Your task to perform on an android device: show emergency info Image 0: 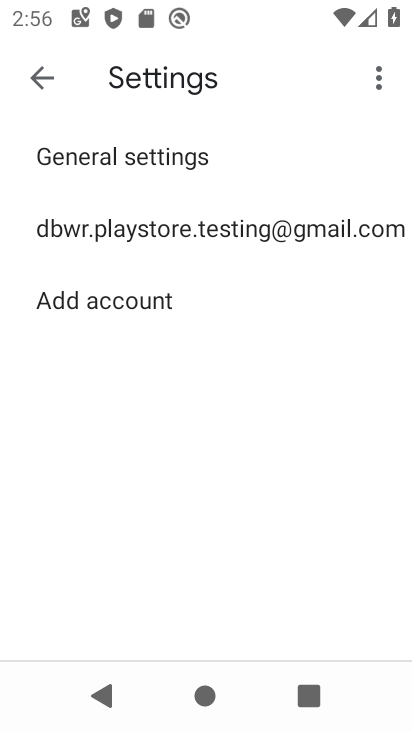
Step 0: press home button
Your task to perform on an android device: show emergency info Image 1: 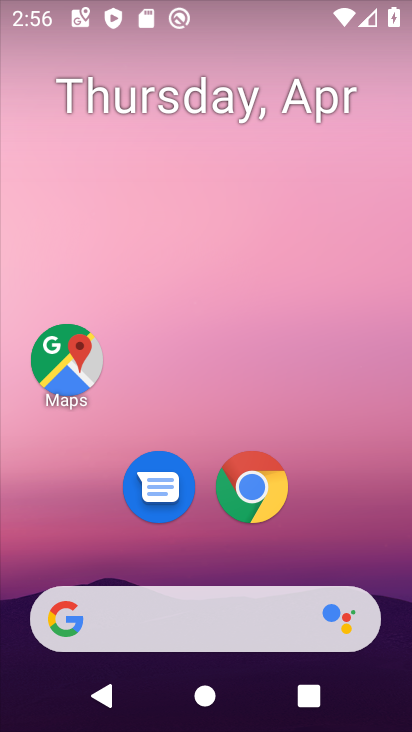
Step 1: drag from (251, 578) to (270, 134)
Your task to perform on an android device: show emergency info Image 2: 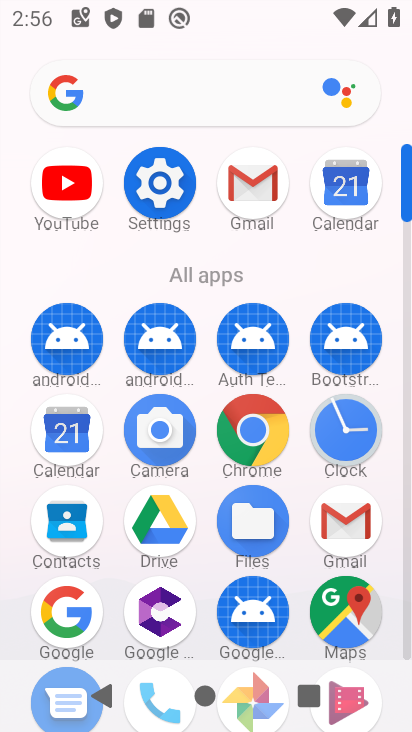
Step 2: click (166, 186)
Your task to perform on an android device: show emergency info Image 3: 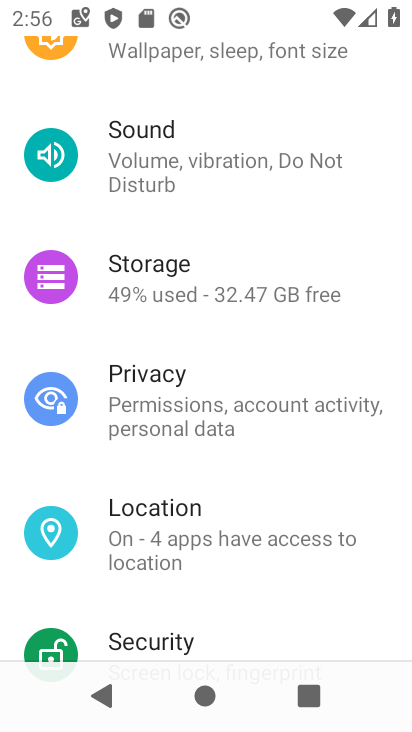
Step 3: drag from (226, 432) to (233, 331)
Your task to perform on an android device: show emergency info Image 4: 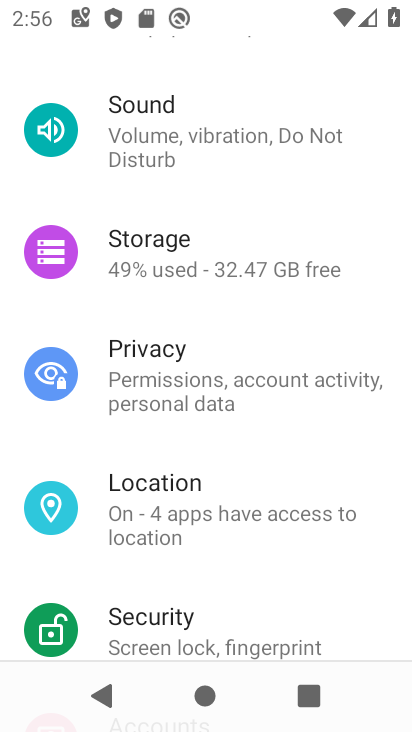
Step 4: drag from (230, 536) to (244, 125)
Your task to perform on an android device: show emergency info Image 5: 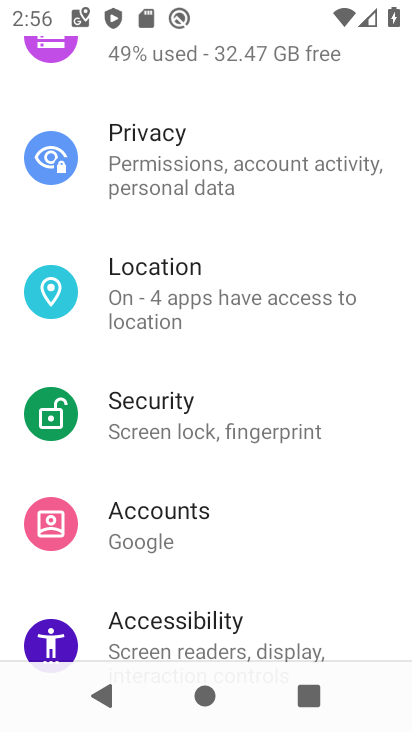
Step 5: drag from (168, 564) to (219, 0)
Your task to perform on an android device: show emergency info Image 6: 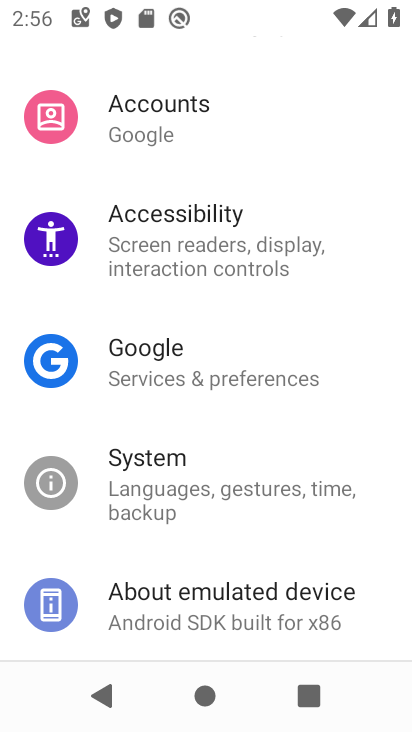
Step 6: drag from (163, 551) to (228, 23)
Your task to perform on an android device: show emergency info Image 7: 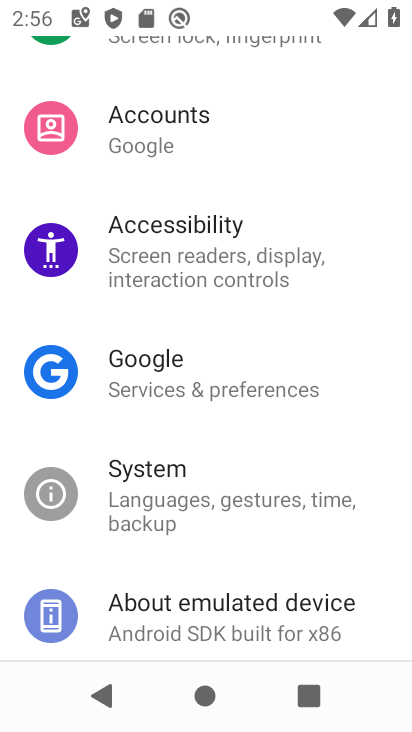
Step 7: click (195, 621)
Your task to perform on an android device: show emergency info Image 8: 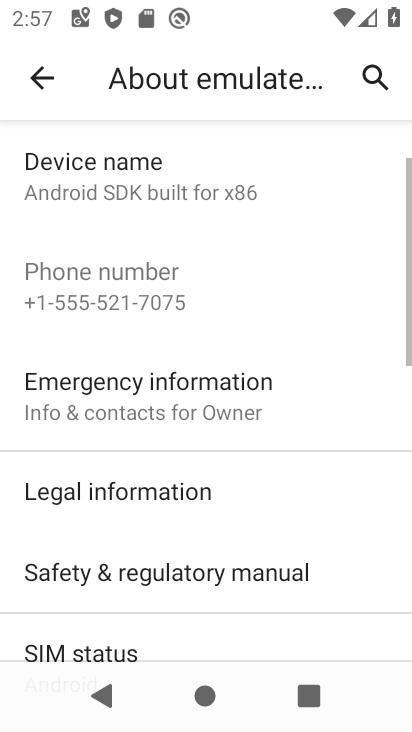
Step 8: click (181, 425)
Your task to perform on an android device: show emergency info Image 9: 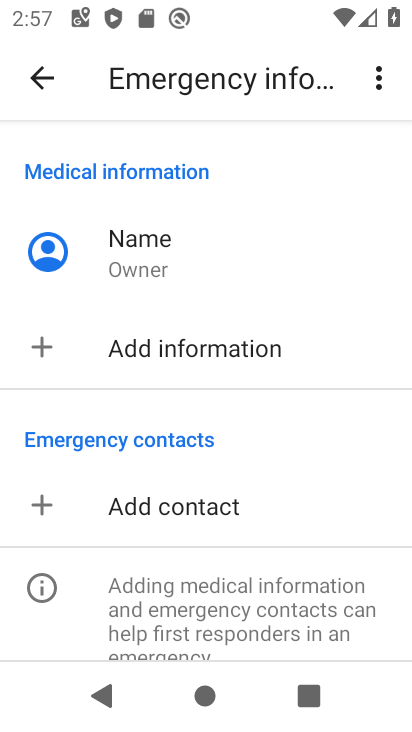
Step 9: task complete